Your task to perform on an android device: turn on bluetooth scan Image 0: 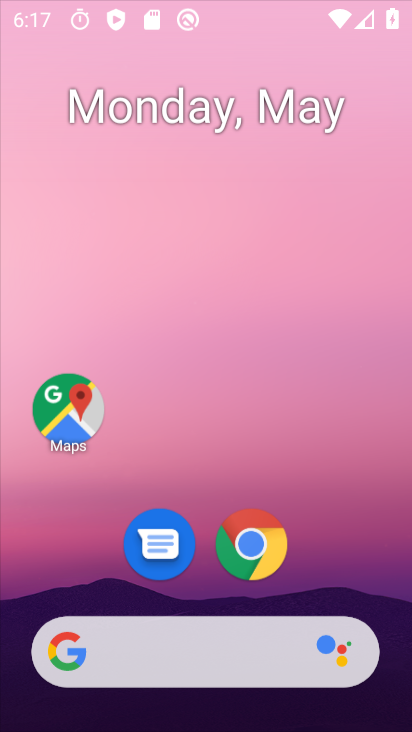
Step 0: click (269, 542)
Your task to perform on an android device: turn on bluetooth scan Image 1: 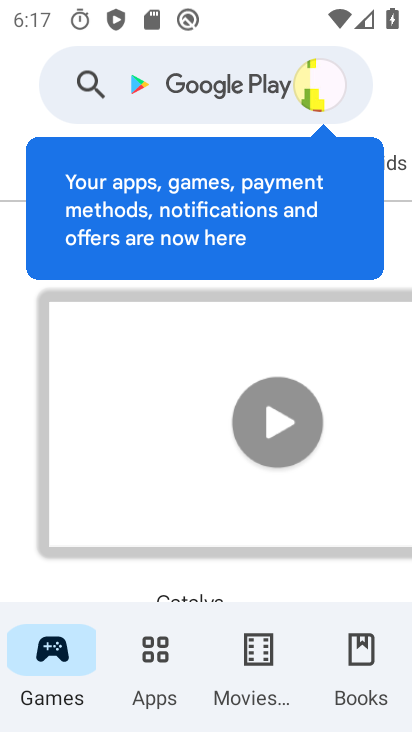
Step 1: press home button
Your task to perform on an android device: turn on bluetooth scan Image 2: 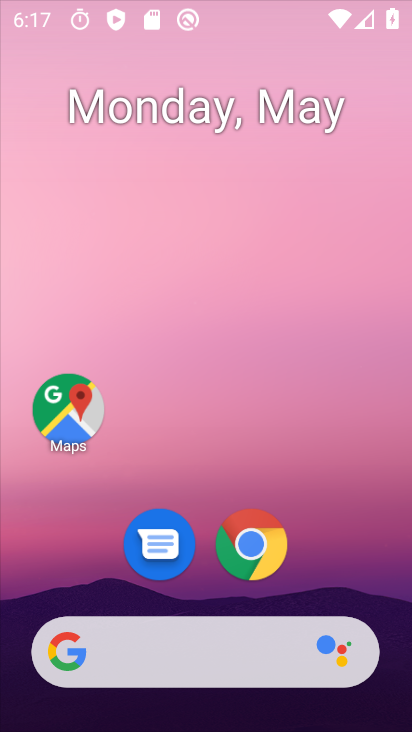
Step 2: drag from (344, 567) to (223, 10)
Your task to perform on an android device: turn on bluetooth scan Image 3: 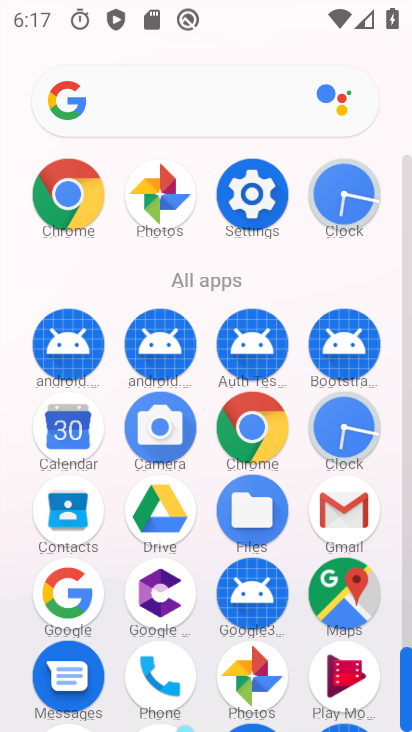
Step 3: click (262, 193)
Your task to perform on an android device: turn on bluetooth scan Image 4: 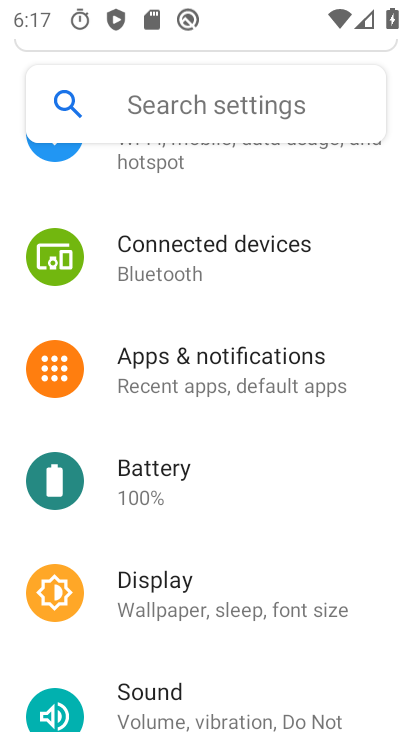
Step 4: drag from (268, 642) to (243, 147)
Your task to perform on an android device: turn on bluetooth scan Image 5: 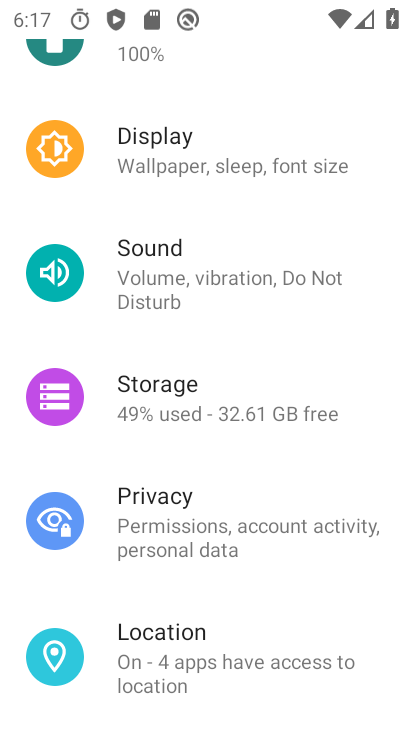
Step 5: click (241, 638)
Your task to perform on an android device: turn on bluetooth scan Image 6: 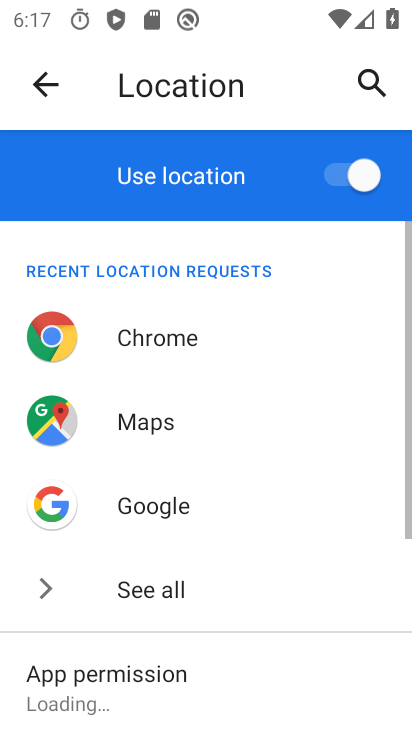
Step 6: drag from (286, 622) to (237, 166)
Your task to perform on an android device: turn on bluetooth scan Image 7: 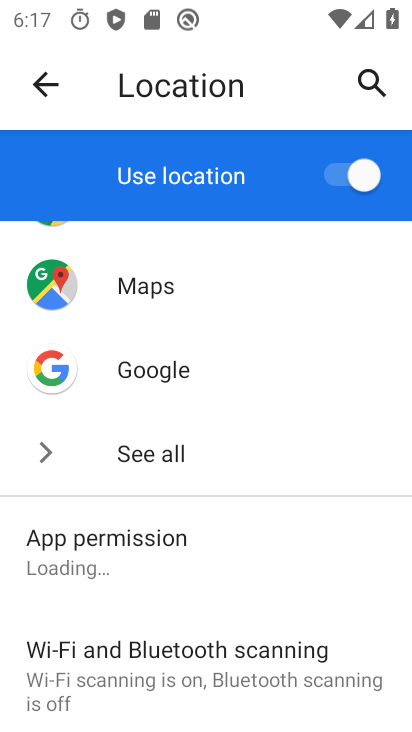
Step 7: drag from (233, 373) to (198, 124)
Your task to perform on an android device: turn on bluetooth scan Image 8: 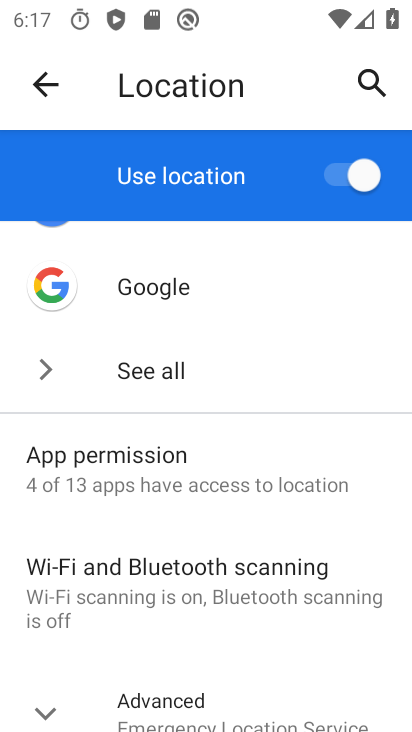
Step 8: click (153, 582)
Your task to perform on an android device: turn on bluetooth scan Image 9: 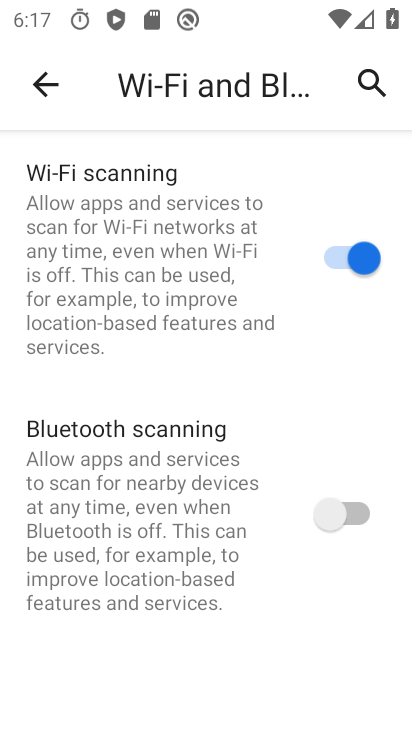
Step 9: click (336, 515)
Your task to perform on an android device: turn on bluetooth scan Image 10: 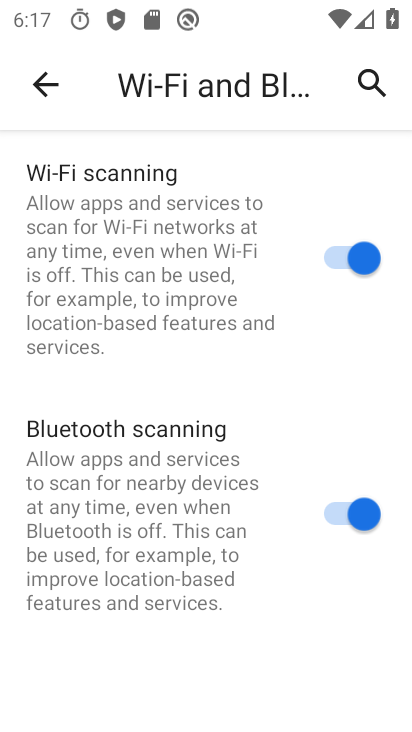
Step 10: task complete